Your task to perform on an android device: Go to Google maps Image 0: 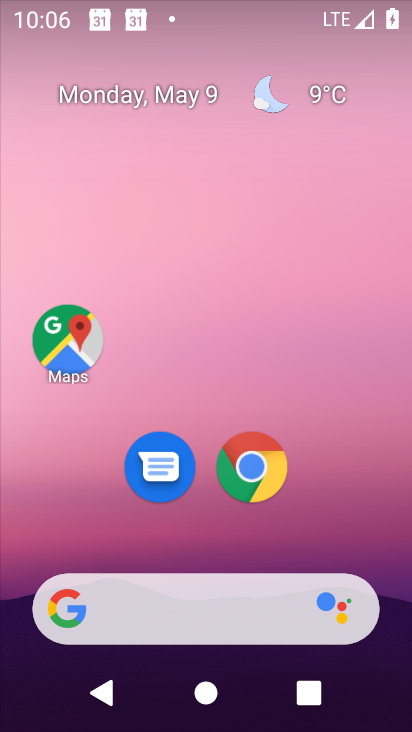
Step 0: click (79, 345)
Your task to perform on an android device: Go to Google maps Image 1: 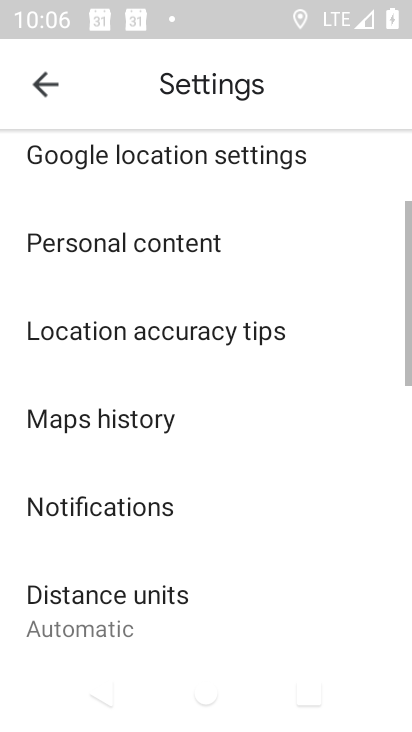
Step 1: click (55, 85)
Your task to perform on an android device: Go to Google maps Image 2: 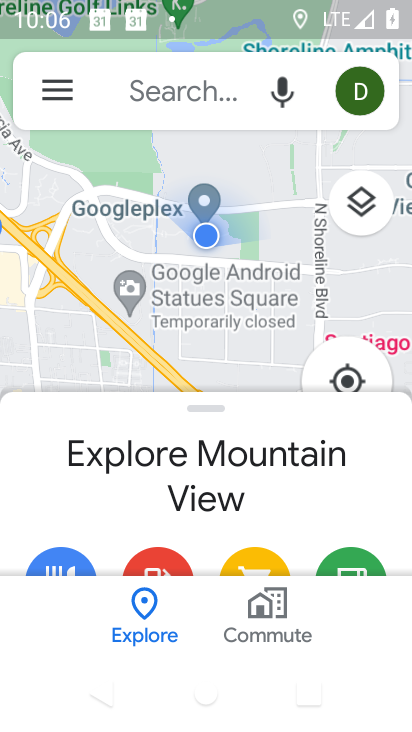
Step 2: task complete